Your task to perform on an android device: Open Google Maps Image 0: 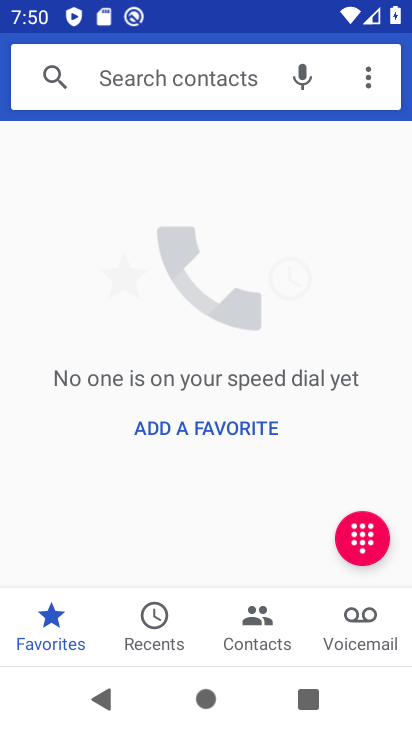
Step 0: press home button
Your task to perform on an android device: Open Google Maps Image 1: 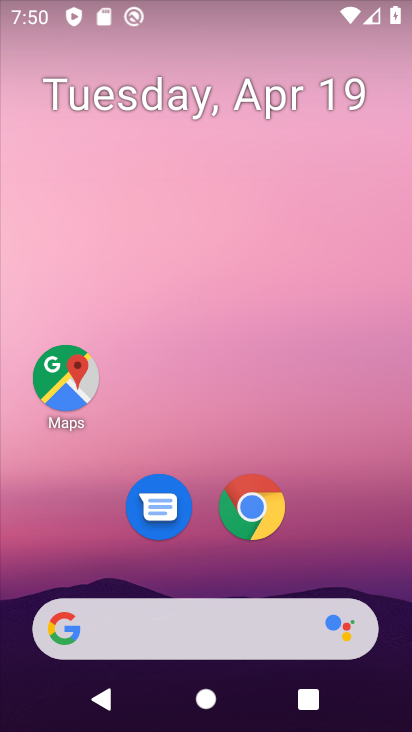
Step 1: click (61, 373)
Your task to perform on an android device: Open Google Maps Image 2: 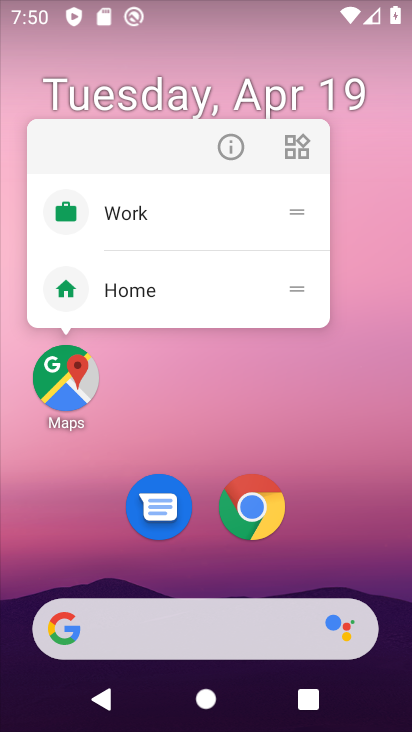
Step 2: click (238, 146)
Your task to perform on an android device: Open Google Maps Image 3: 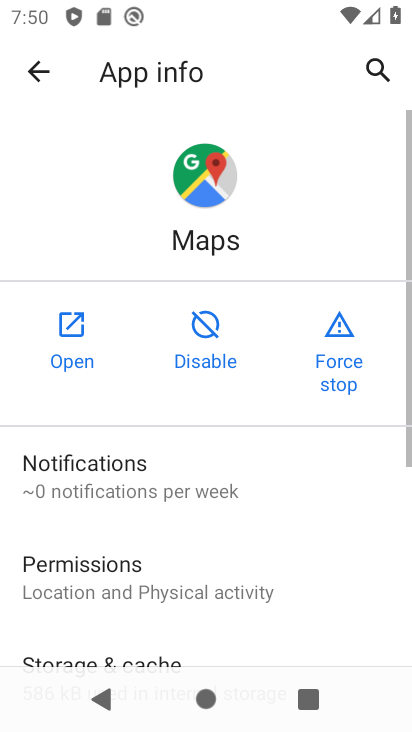
Step 3: click (88, 331)
Your task to perform on an android device: Open Google Maps Image 4: 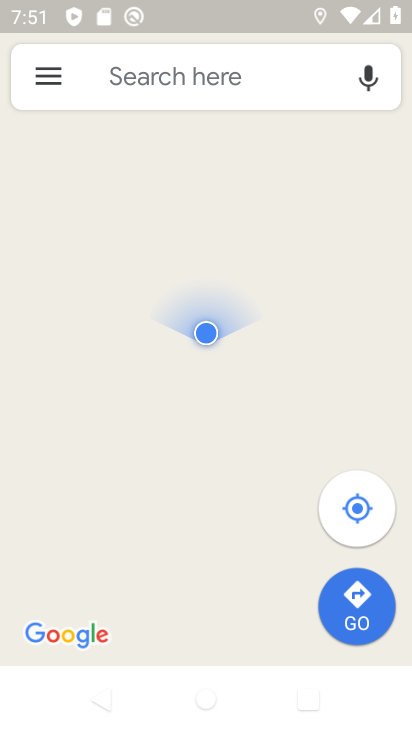
Step 4: task complete